Your task to perform on an android device: toggle javascript in the chrome app Image 0: 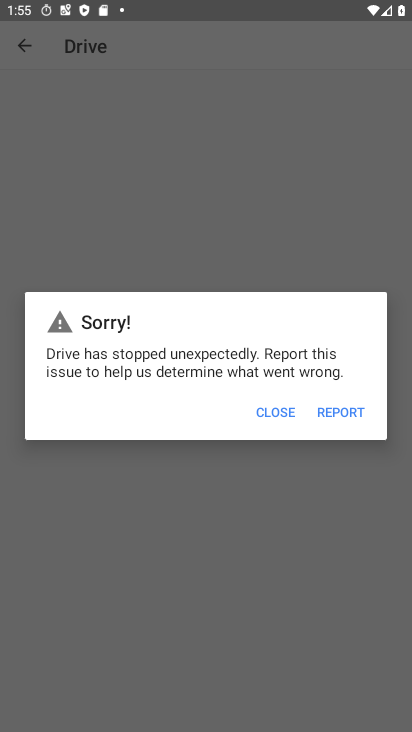
Step 0: press home button
Your task to perform on an android device: toggle javascript in the chrome app Image 1: 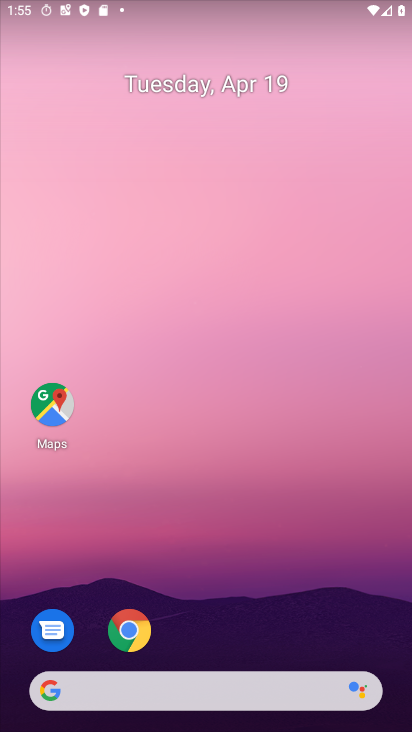
Step 1: click (140, 628)
Your task to perform on an android device: toggle javascript in the chrome app Image 2: 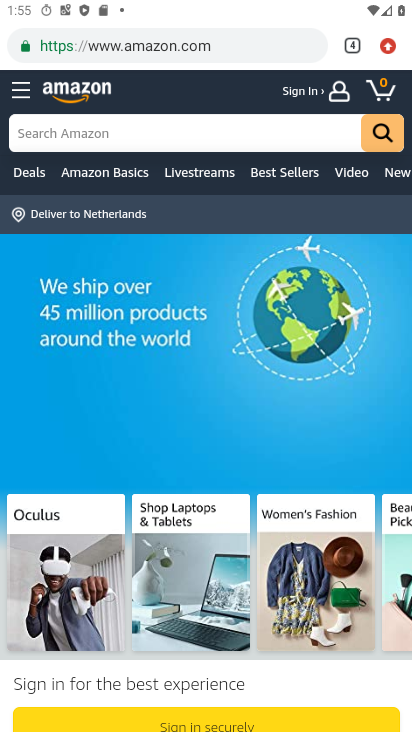
Step 2: click (382, 42)
Your task to perform on an android device: toggle javascript in the chrome app Image 3: 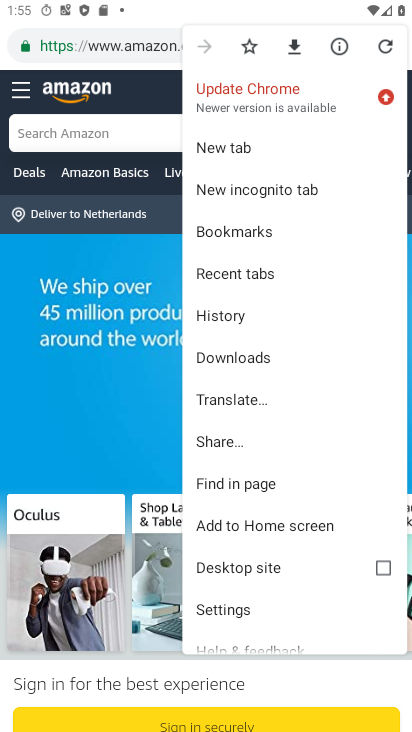
Step 3: click (262, 613)
Your task to perform on an android device: toggle javascript in the chrome app Image 4: 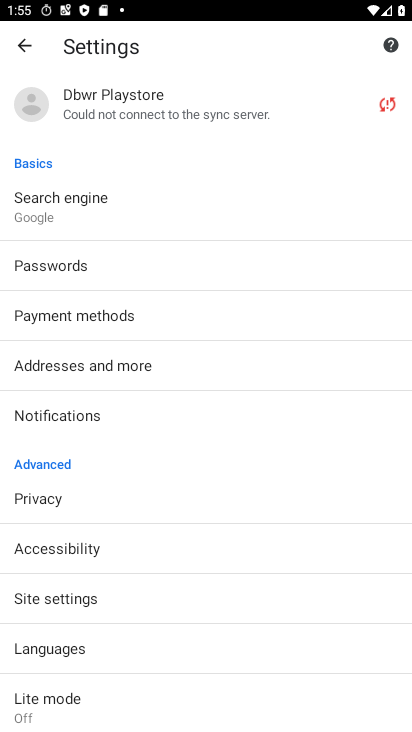
Step 4: click (81, 596)
Your task to perform on an android device: toggle javascript in the chrome app Image 5: 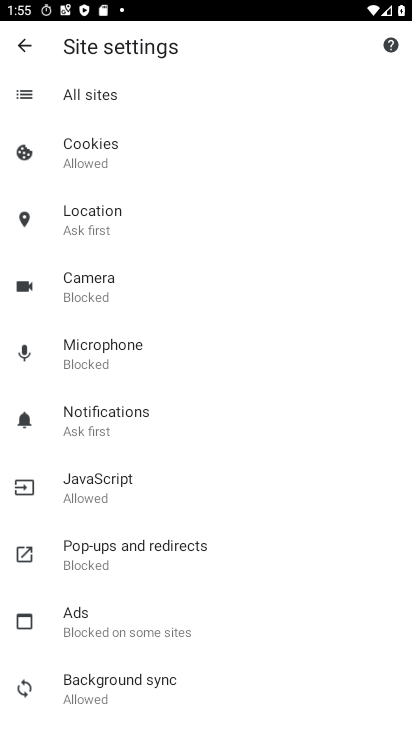
Step 5: click (93, 495)
Your task to perform on an android device: toggle javascript in the chrome app Image 6: 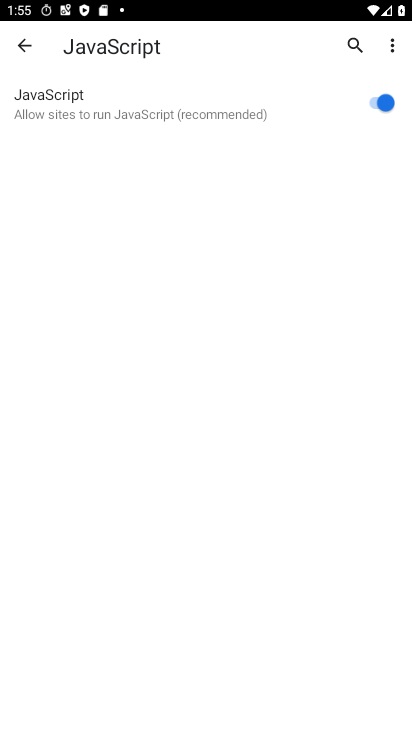
Step 6: click (372, 103)
Your task to perform on an android device: toggle javascript in the chrome app Image 7: 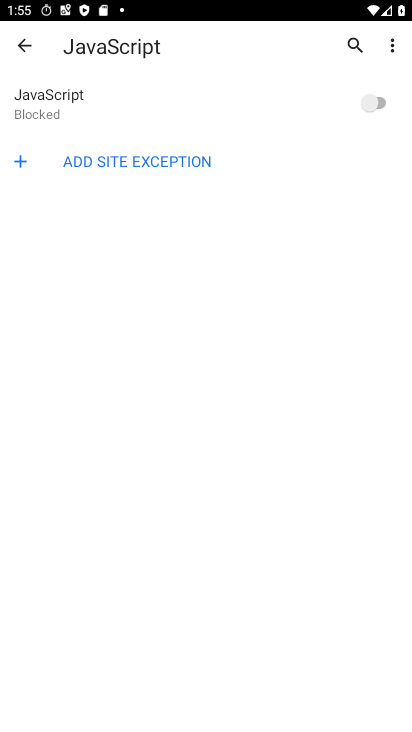
Step 7: task complete